Your task to perform on an android device: open chrome and create a bookmark for the current page Image 0: 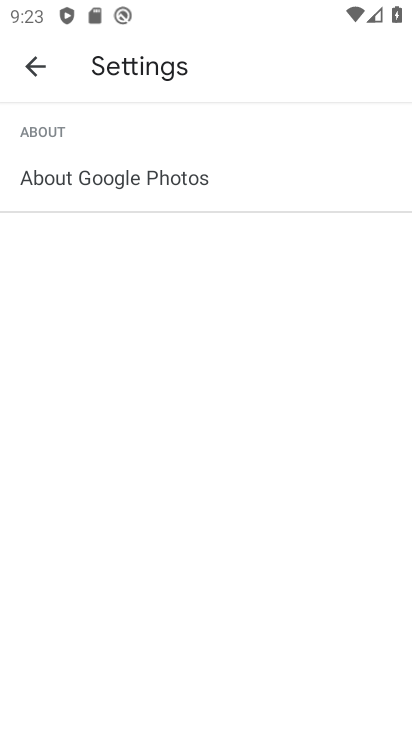
Step 0: press home button
Your task to perform on an android device: open chrome and create a bookmark for the current page Image 1: 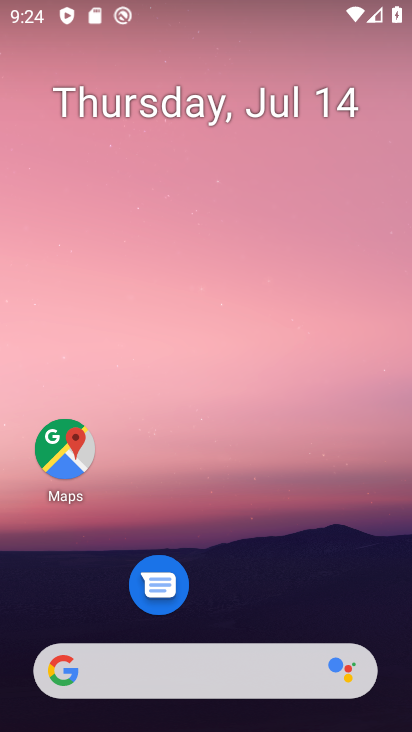
Step 1: drag from (227, 632) to (13, 228)
Your task to perform on an android device: open chrome and create a bookmark for the current page Image 2: 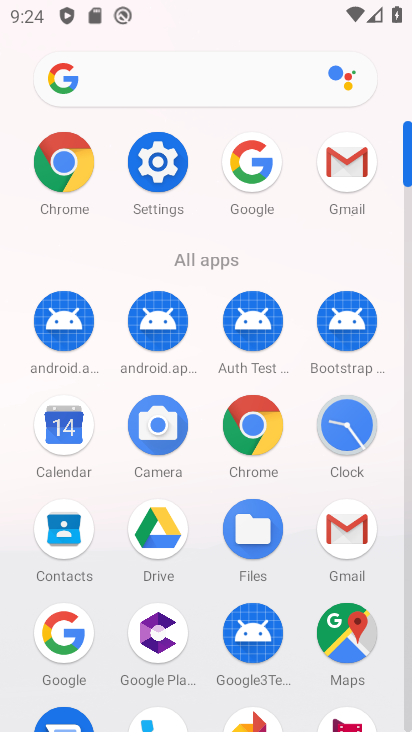
Step 2: click (58, 169)
Your task to perform on an android device: open chrome and create a bookmark for the current page Image 3: 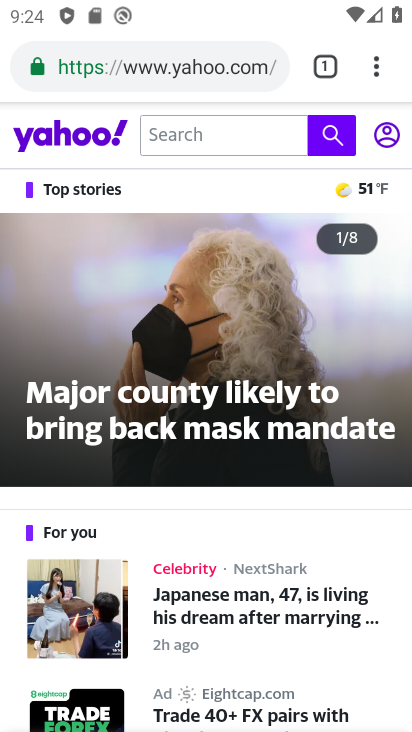
Step 3: click (377, 64)
Your task to perform on an android device: open chrome and create a bookmark for the current page Image 4: 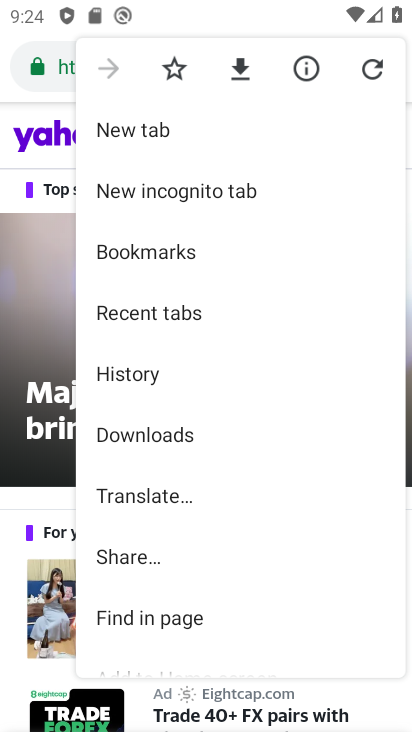
Step 4: click (160, 265)
Your task to perform on an android device: open chrome and create a bookmark for the current page Image 5: 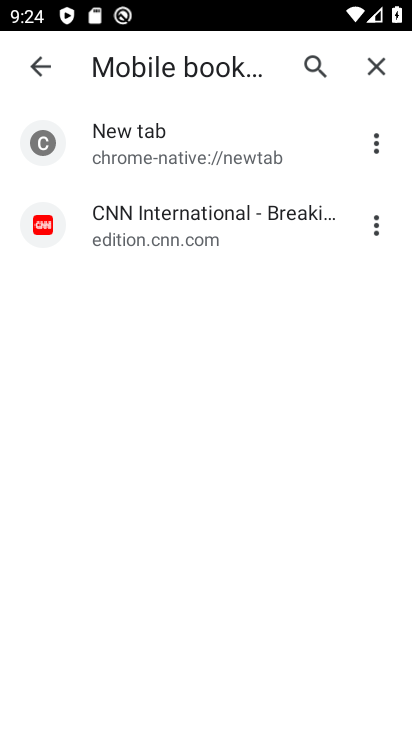
Step 5: click (378, 69)
Your task to perform on an android device: open chrome and create a bookmark for the current page Image 6: 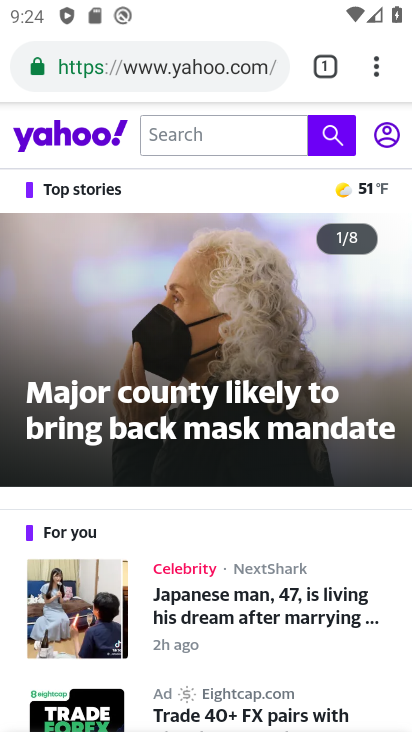
Step 6: click (378, 69)
Your task to perform on an android device: open chrome and create a bookmark for the current page Image 7: 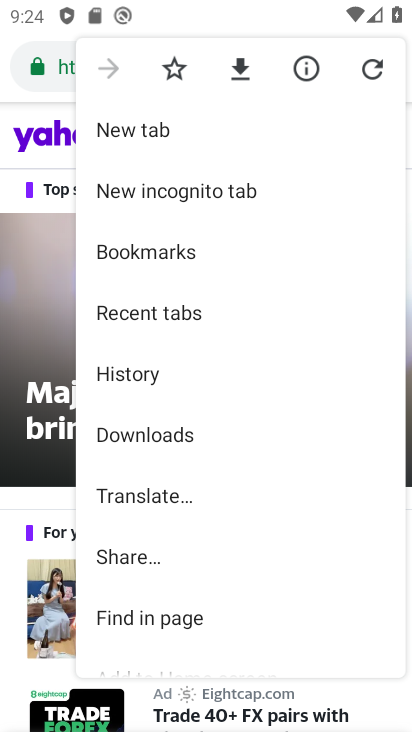
Step 7: click (175, 76)
Your task to perform on an android device: open chrome and create a bookmark for the current page Image 8: 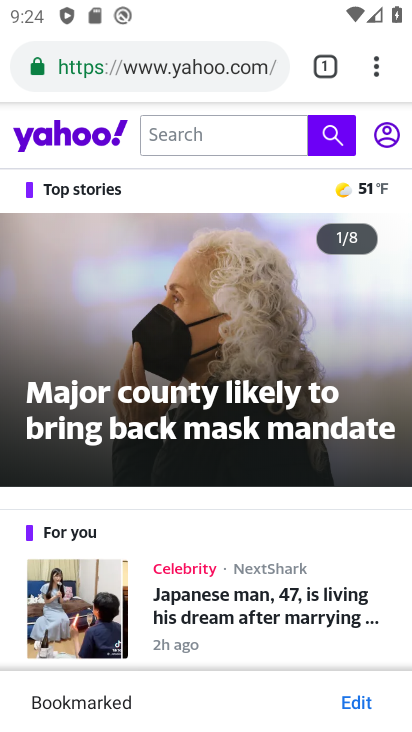
Step 8: task complete